Your task to perform on an android device: open device folders in google photos Image 0: 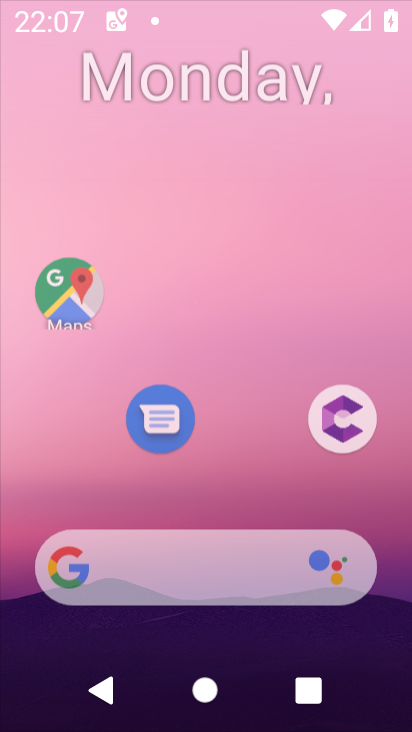
Step 0: press home button
Your task to perform on an android device: open device folders in google photos Image 1: 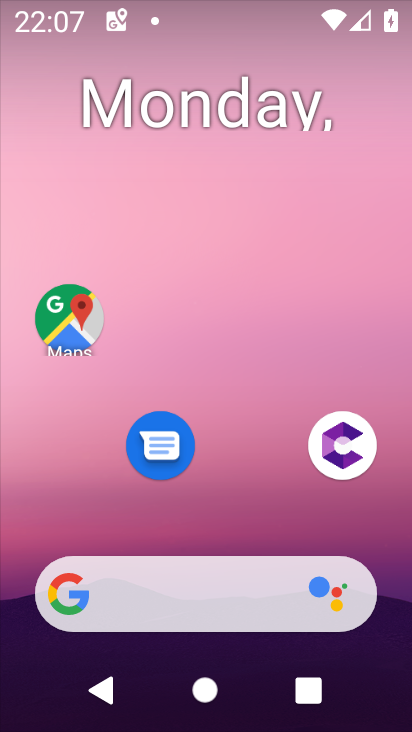
Step 1: drag from (200, 505) to (199, 1)
Your task to perform on an android device: open device folders in google photos Image 2: 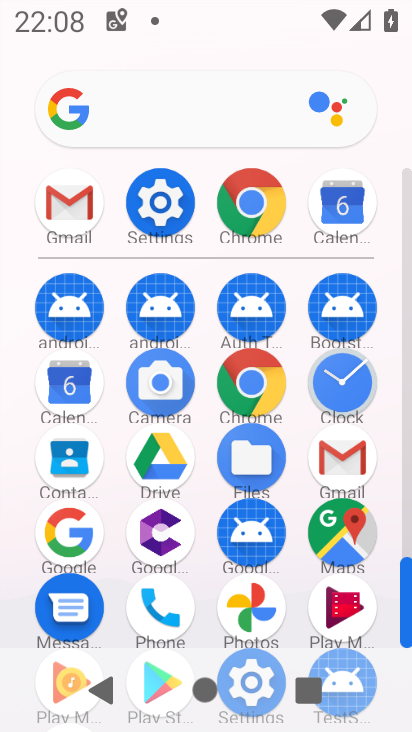
Step 2: click (254, 602)
Your task to perform on an android device: open device folders in google photos Image 3: 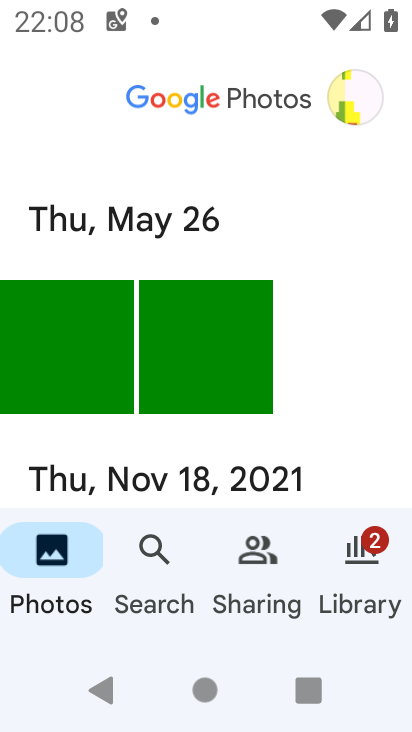
Step 3: click (363, 562)
Your task to perform on an android device: open device folders in google photos Image 4: 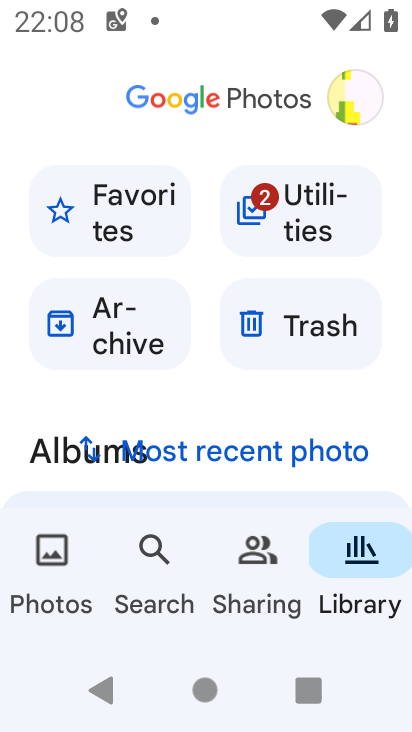
Step 4: task complete